Your task to perform on an android device: What is the news today? Image 0: 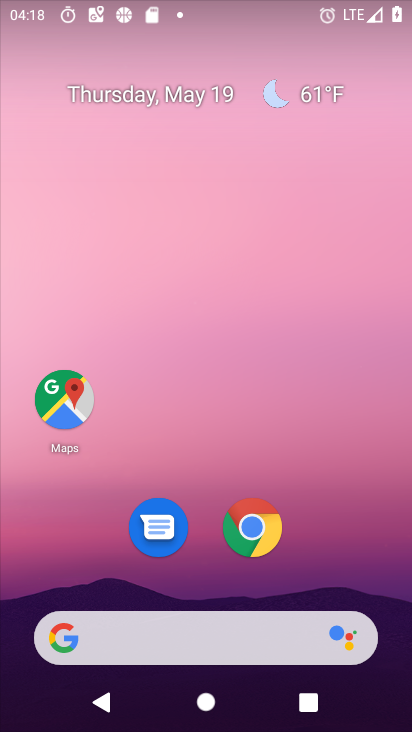
Step 0: drag from (174, 608) to (267, 97)
Your task to perform on an android device: What is the news today? Image 1: 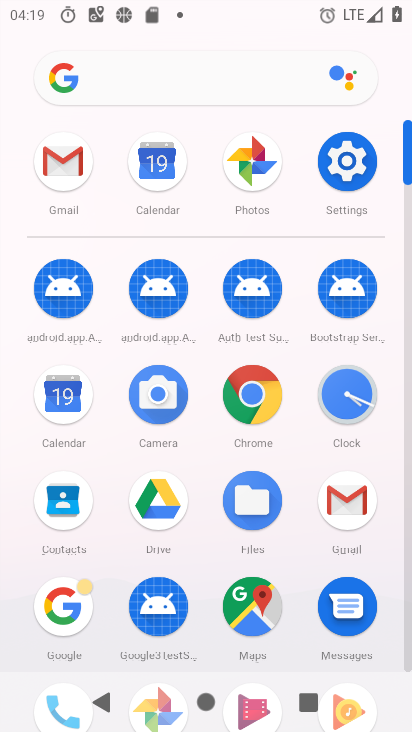
Step 1: click (133, 81)
Your task to perform on an android device: What is the news today? Image 2: 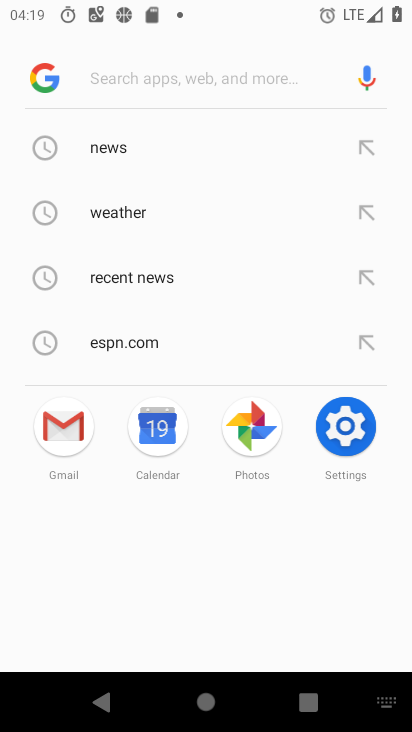
Step 2: click (130, 145)
Your task to perform on an android device: What is the news today? Image 3: 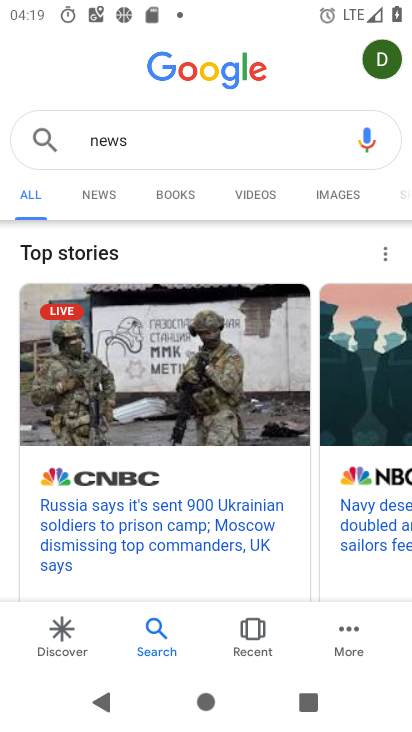
Step 3: task complete